Your task to perform on an android device: change the clock display to show seconds Image 0: 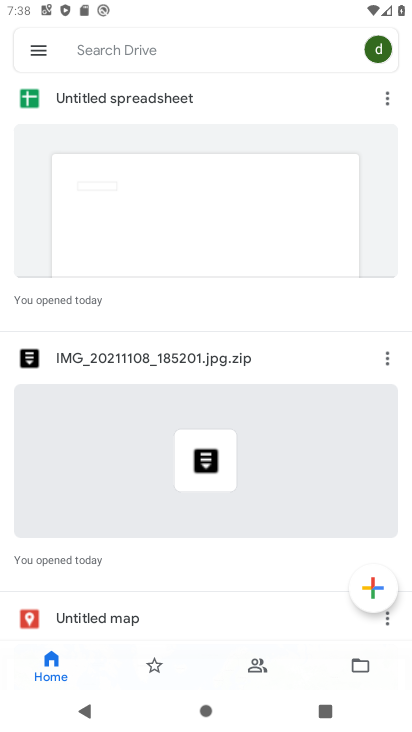
Step 0: press home button
Your task to perform on an android device: change the clock display to show seconds Image 1: 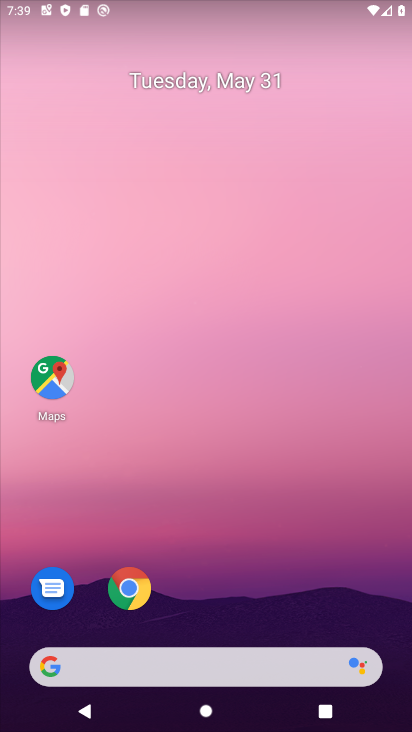
Step 1: drag from (187, 603) to (254, 205)
Your task to perform on an android device: change the clock display to show seconds Image 2: 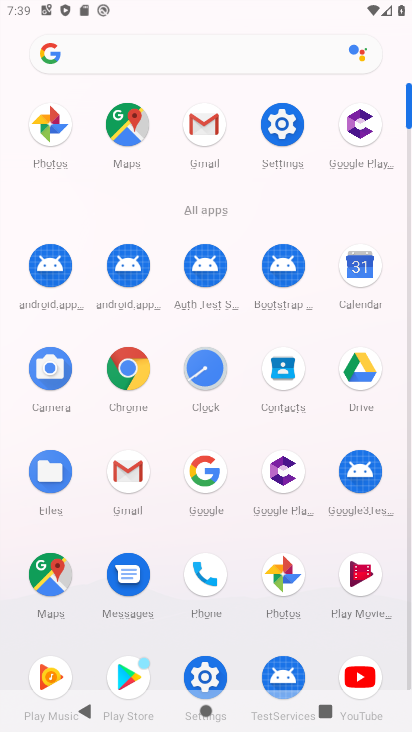
Step 2: drag from (159, 586) to (179, 269)
Your task to perform on an android device: change the clock display to show seconds Image 3: 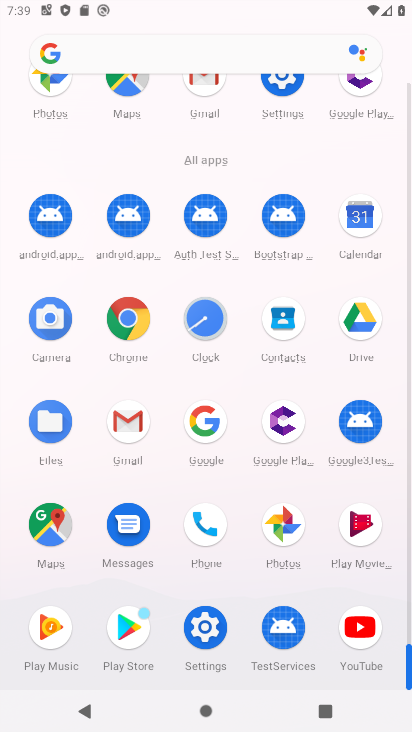
Step 3: click (210, 334)
Your task to perform on an android device: change the clock display to show seconds Image 4: 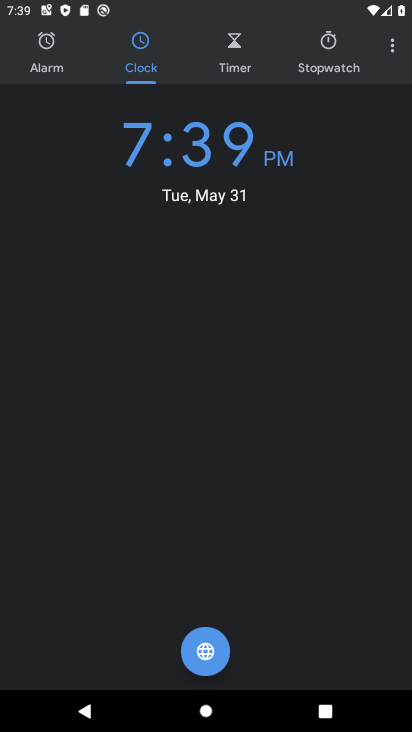
Step 4: click (388, 45)
Your task to perform on an android device: change the clock display to show seconds Image 5: 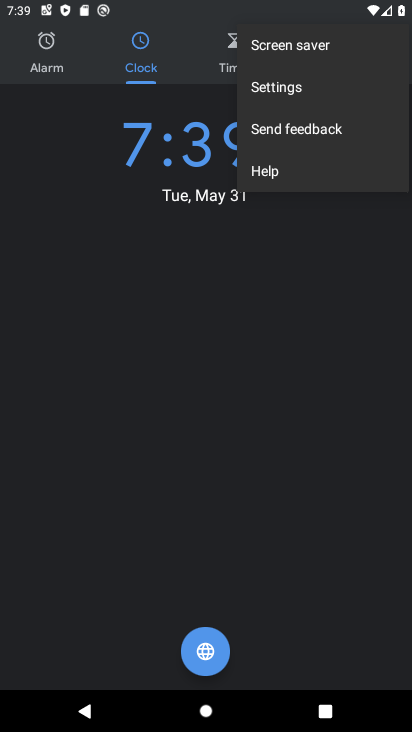
Step 5: click (283, 91)
Your task to perform on an android device: change the clock display to show seconds Image 6: 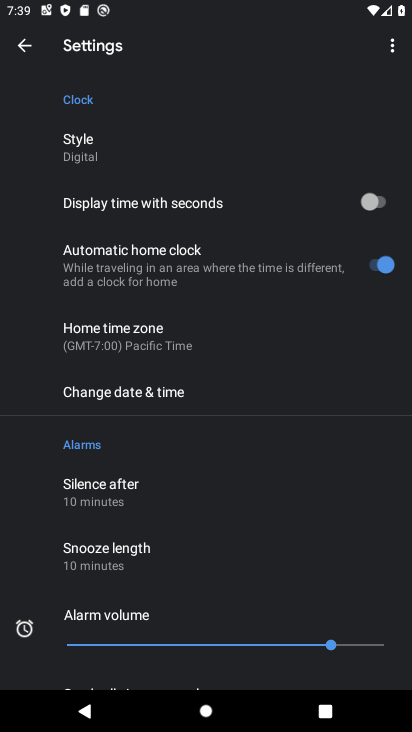
Step 6: click (90, 161)
Your task to perform on an android device: change the clock display to show seconds Image 7: 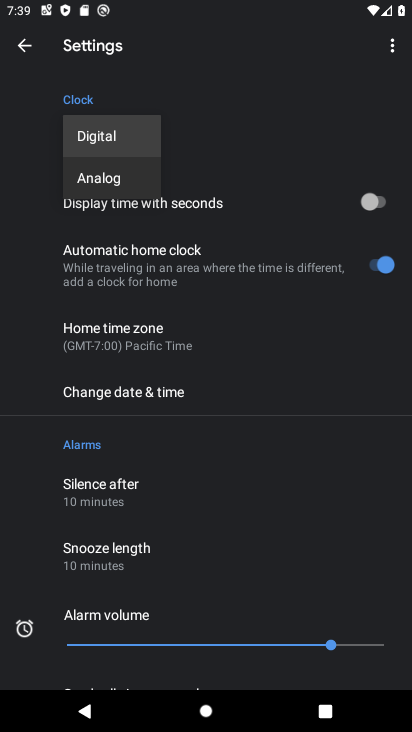
Step 7: click (106, 187)
Your task to perform on an android device: change the clock display to show seconds Image 8: 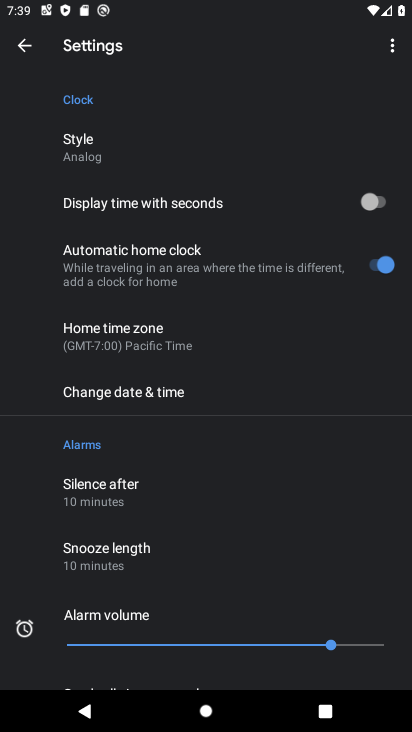
Step 8: click (385, 197)
Your task to perform on an android device: change the clock display to show seconds Image 9: 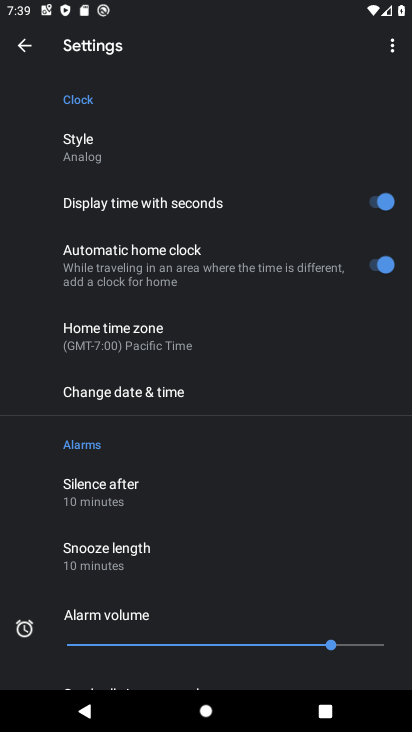
Step 9: task complete